Your task to perform on an android device: Open Maps and search for coffee Image 0: 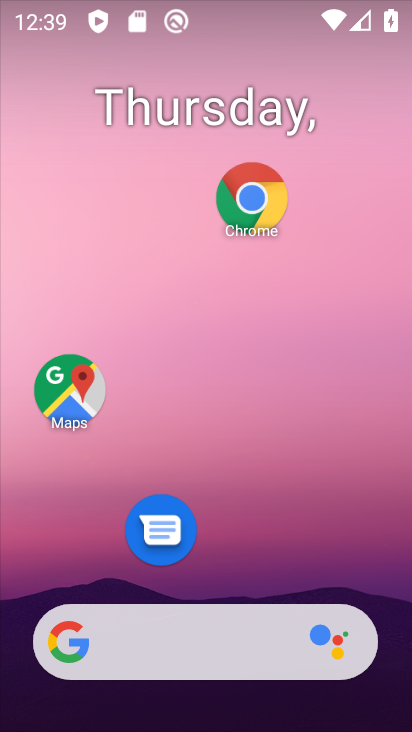
Step 0: drag from (215, 591) to (251, 50)
Your task to perform on an android device: Open Maps and search for coffee Image 1: 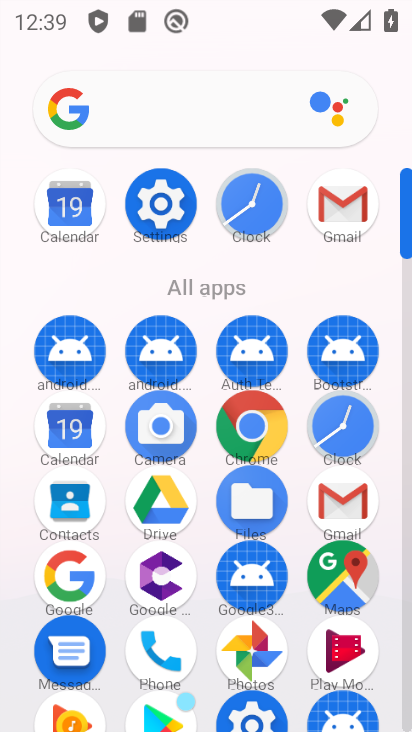
Step 1: click (329, 564)
Your task to perform on an android device: Open Maps and search for coffee Image 2: 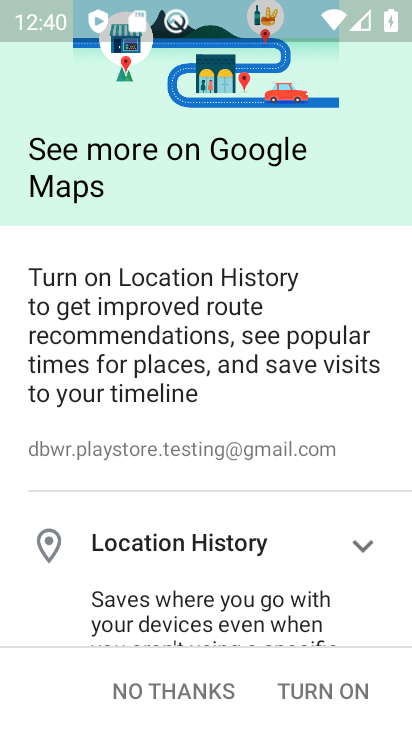
Step 2: click (323, 709)
Your task to perform on an android device: Open Maps and search for coffee Image 3: 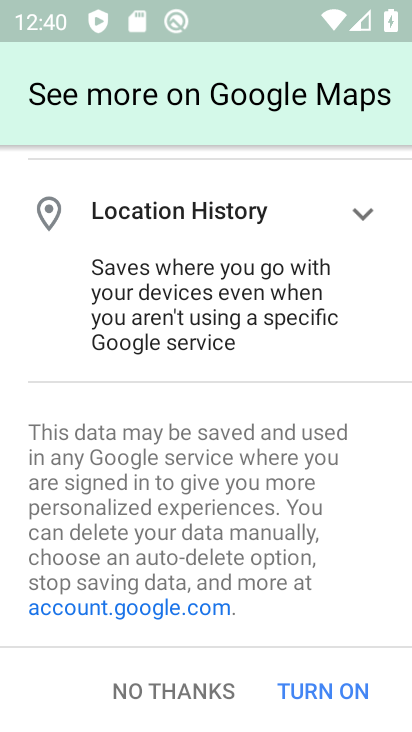
Step 3: click (321, 700)
Your task to perform on an android device: Open Maps and search for coffee Image 4: 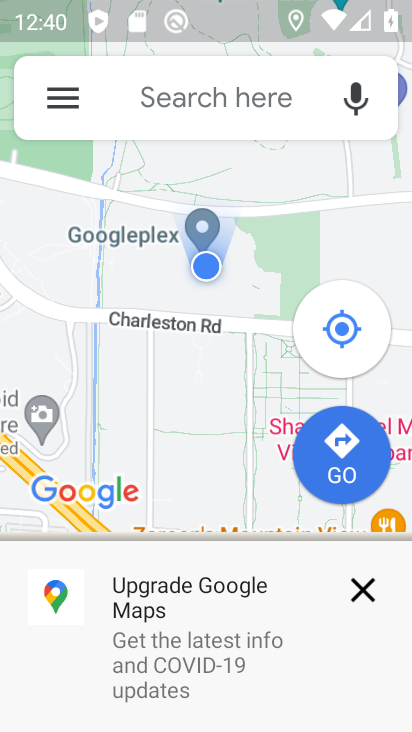
Step 4: click (222, 89)
Your task to perform on an android device: Open Maps and search for coffee Image 5: 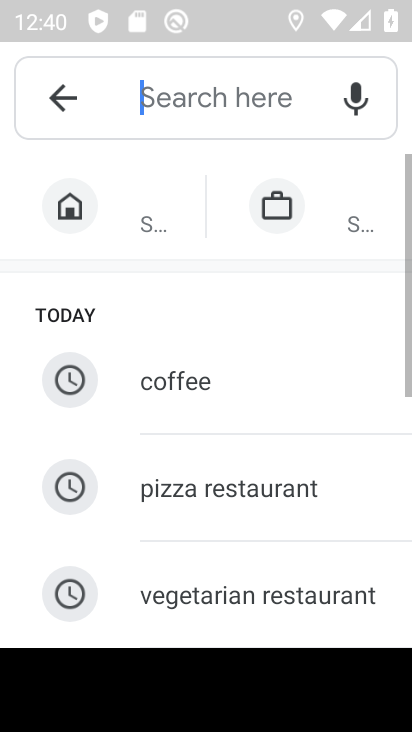
Step 5: click (176, 393)
Your task to perform on an android device: Open Maps and search for coffee Image 6: 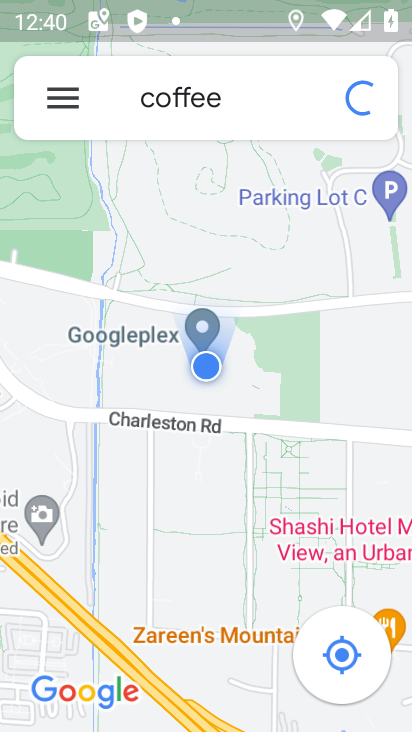
Step 6: task complete